Your task to perform on an android device: create a new album in the google photos Image 0: 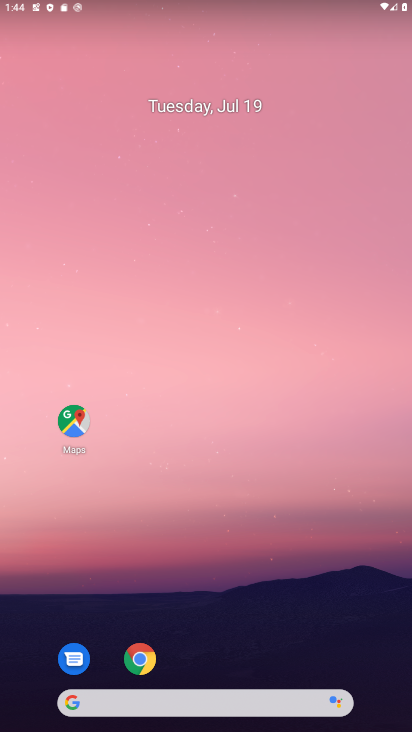
Step 0: press home button
Your task to perform on an android device: create a new album in the google photos Image 1: 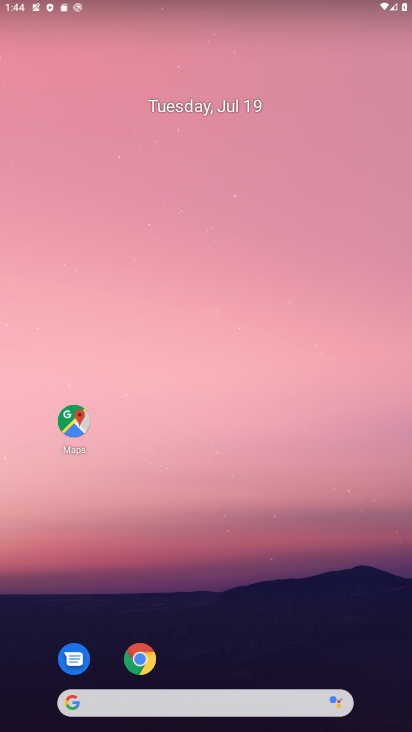
Step 1: drag from (227, 407) to (227, 187)
Your task to perform on an android device: create a new album in the google photos Image 2: 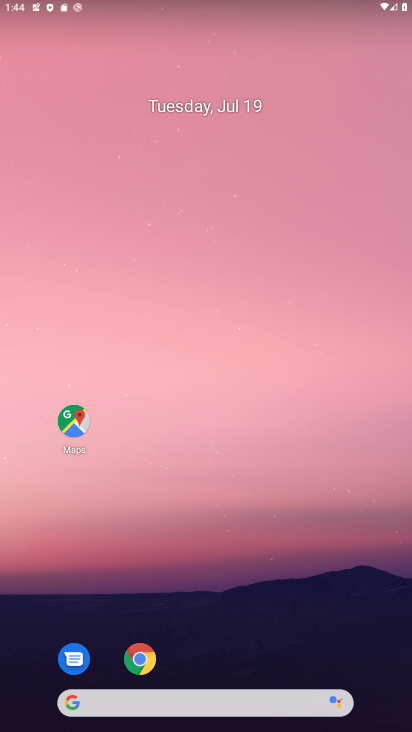
Step 2: drag from (232, 638) to (239, 36)
Your task to perform on an android device: create a new album in the google photos Image 3: 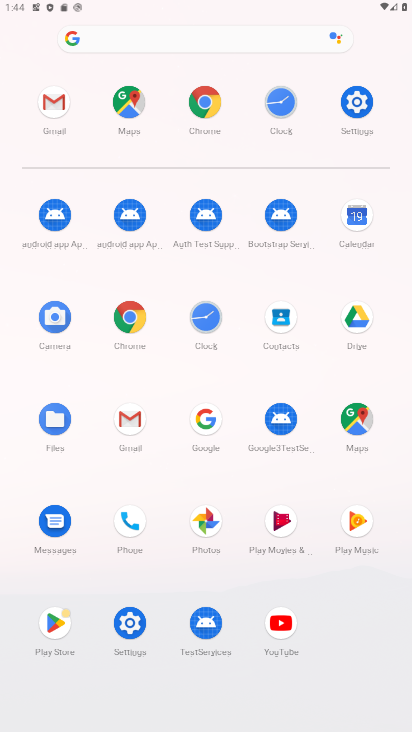
Step 3: click (205, 519)
Your task to perform on an android device: create a new album in the google photos Image 4: 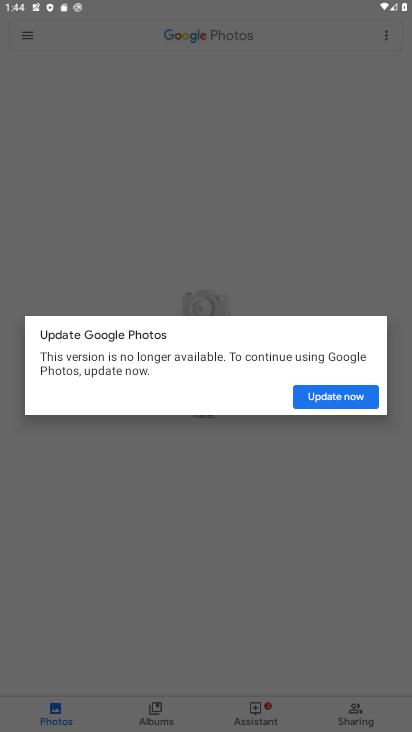
Step 4: click (349, 385)
Your task to perform on an android device: create a new album in the google photos Image 5: 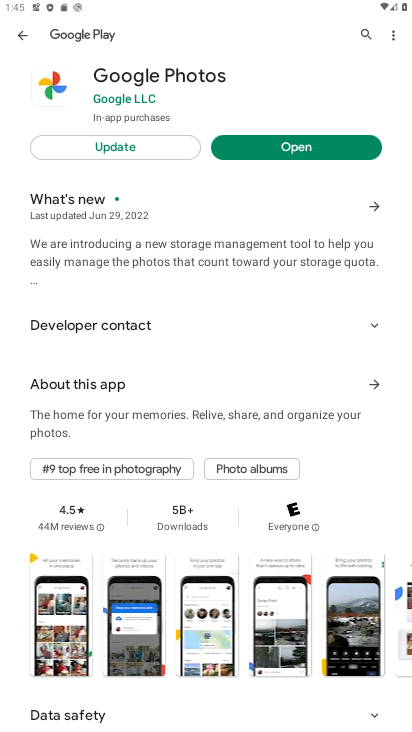
Step 5: click (99, 150)
Your task to perform on an android device: create a new album in the google photos Image 6: 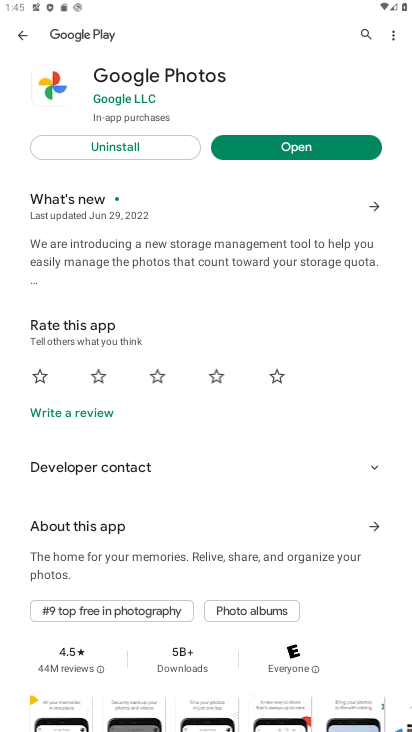
Step 6: click (338, 147)
Your task to perform on an android device: create a new album in the google photos Image 7: 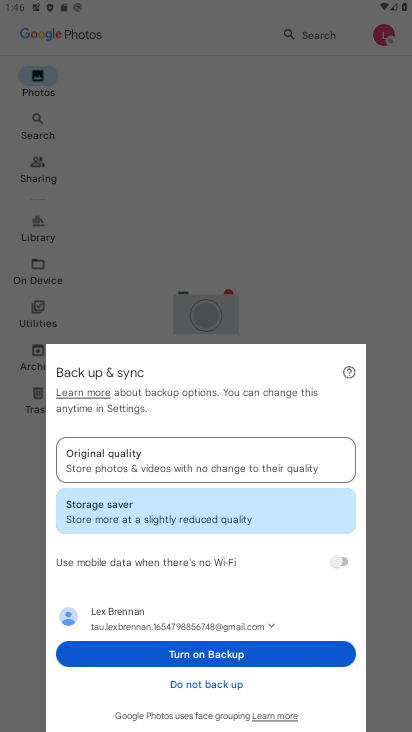
Step 7: click (180, 209)
Your task to perform on an android device: create a new album in the google photos Image 8: 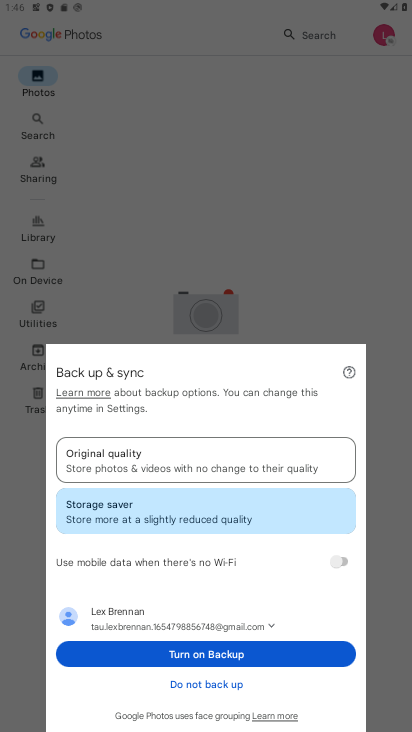
Step 8: click (123, 653)
Your task to perform on an android device: create a new album in the google photos Image 9: 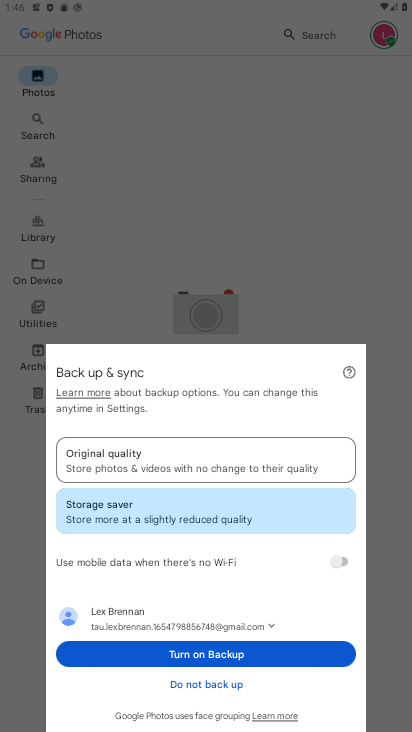
Step 9: click (246, 650)
Your task to perform on an android device: create a new album in the google photos Image 10: 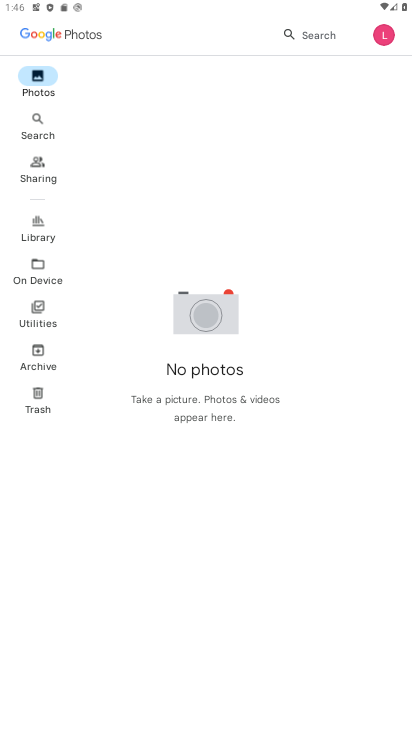
Step 10: task complete